Your task to perform on an android device: change the clock display to show seconds Image 0: 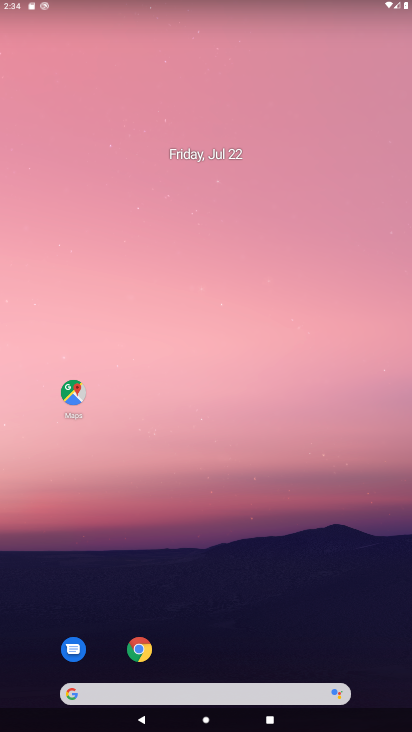
Step 0: drag from (242, 611) to (268, 214)
Your task to perform on an android device: change the clock display to show seconds Image 1: 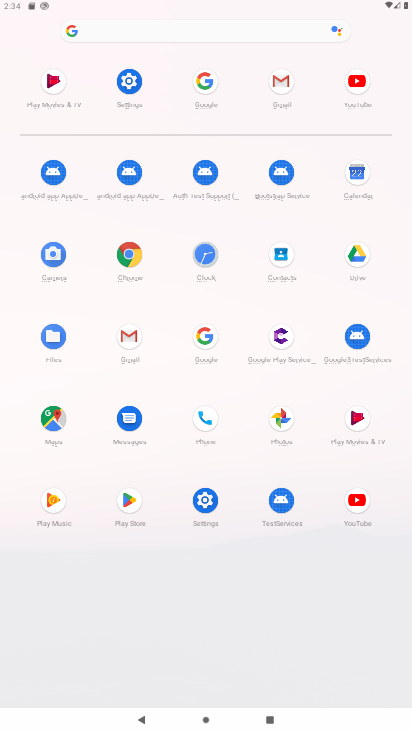
Step 1: click (207, 258)
Your task to perform on an android device: change the clock display to show seconds Image 2: 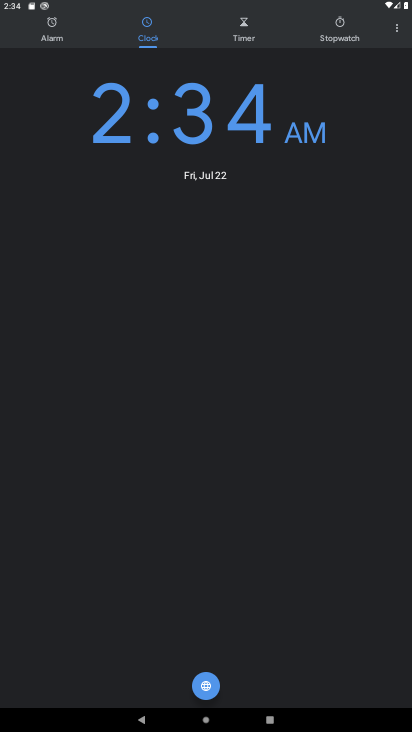
Step 2: click (398, 32)
Your task to perform on an android device: change the clock display to show seconds Image 3: 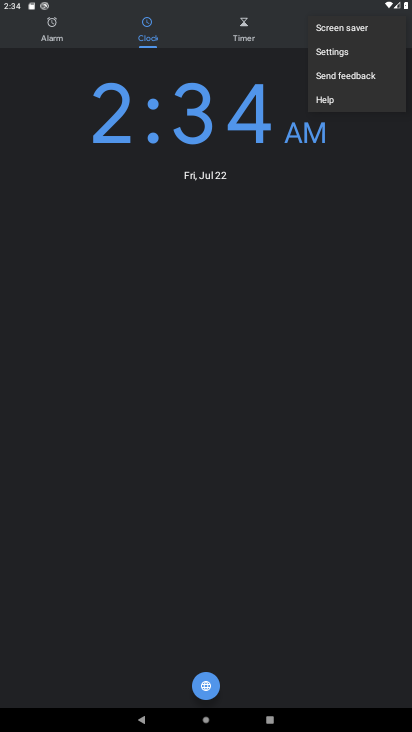
Step 3: click (341, 52)
Your task to perform on an android device: change the clock display to show seconds Image 4: 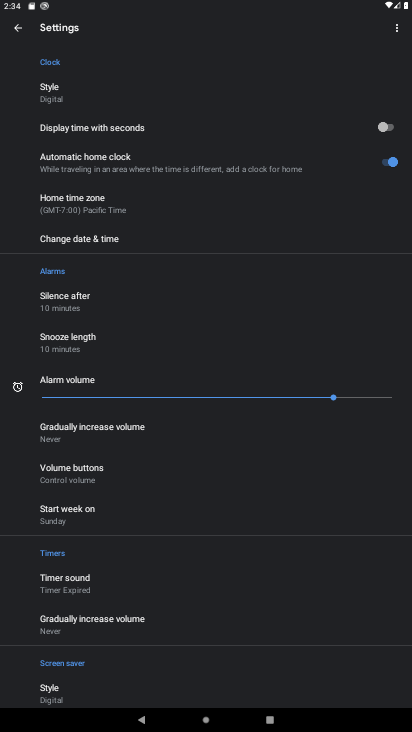
Step 4: click (394, 125)
Your task to perform on an android device: change the clock display to show seconds Image 5: 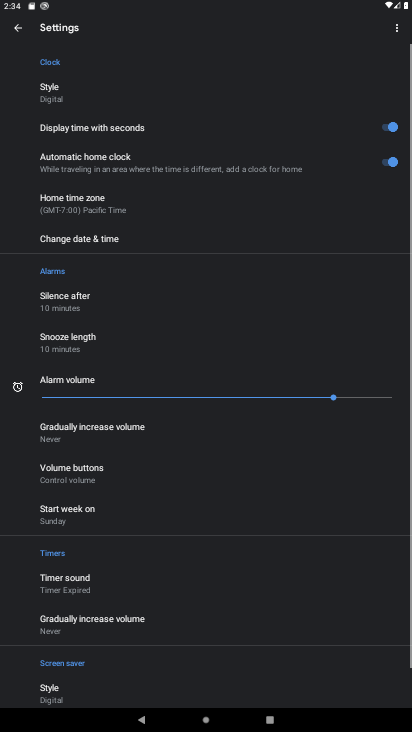
Step 5: task complete